Your task to perform on an android device: What is the news today? Image 0: 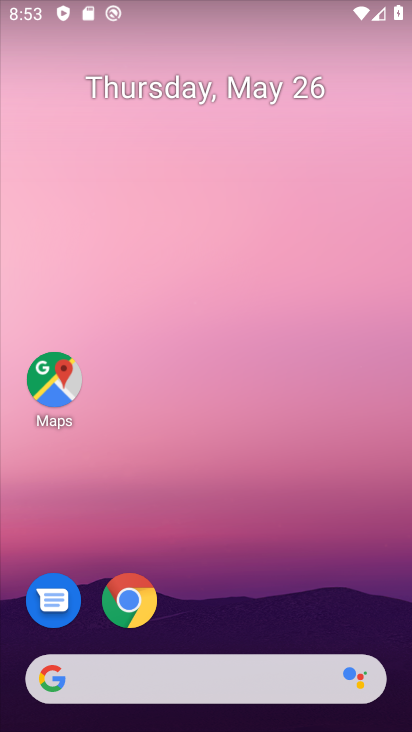
Step 0: click (200, 677)
Your task to perform on an android device: What is the news today? Image 1: 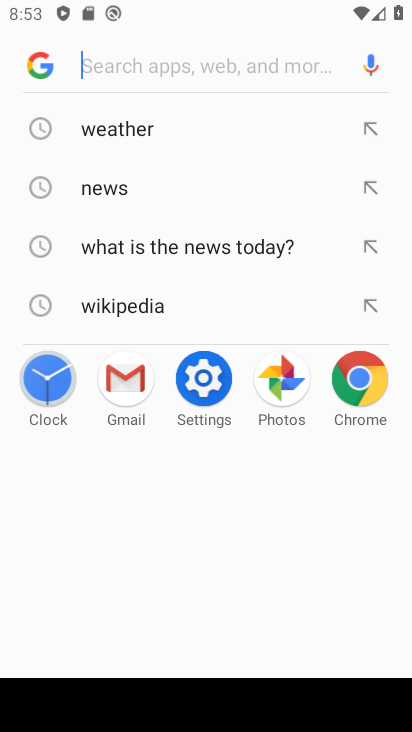
Step 1: click (127, 183)
Your task to perform on an android device: What is the news today? Image 2: 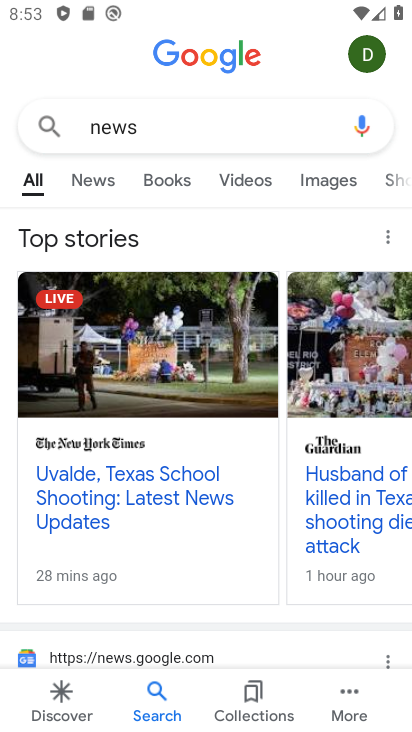
Step 2: task complete